Your task to perform on an android device: Search for pizza restaurants on Maps Image 0: 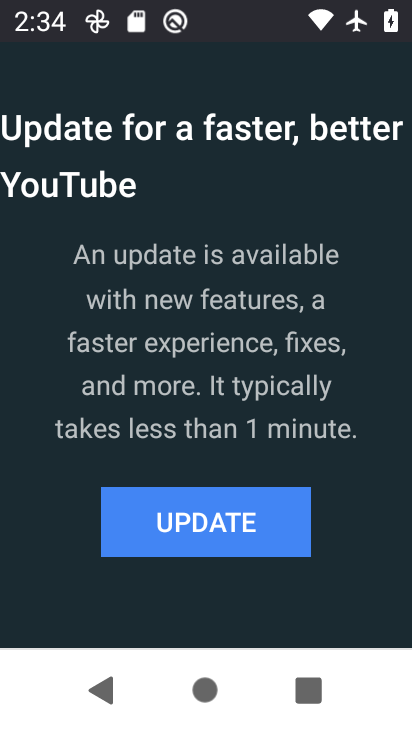
Step 0: press home button
Your task to perform on an android device: Search for pizza restaurants on Maps Image 1: 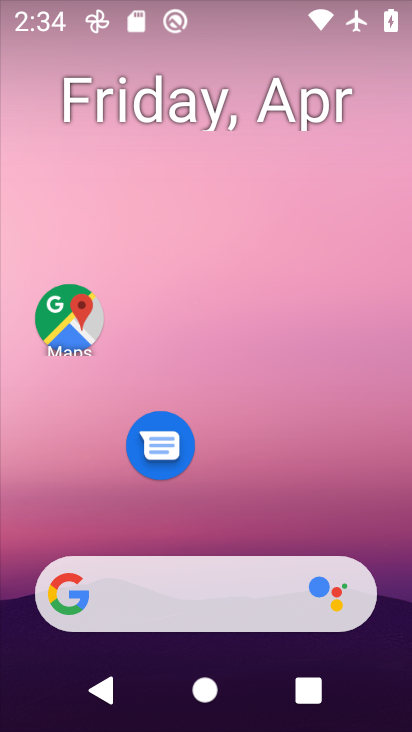
Step 1: drag from (259, 497) to (294, 50)
Your task to perform on an android device: Search for pizza restaurants on Maps Image 2: 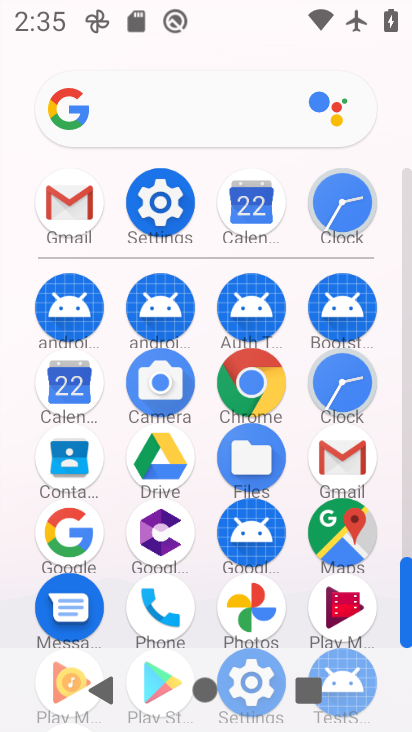
Step 2: click (333, 528)
Your task to perform on an android device: Search for pizza restaurants on Maps Image 3: 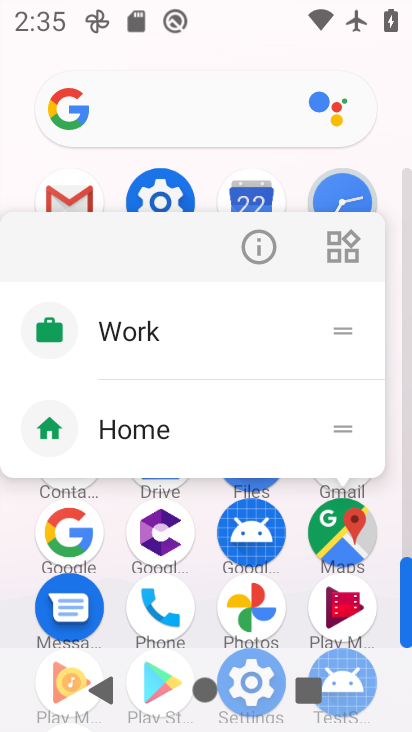
Step 3: click (333, 528)
Your task to perform on an android device: Search for pizza restaurants on Maps Image 4: 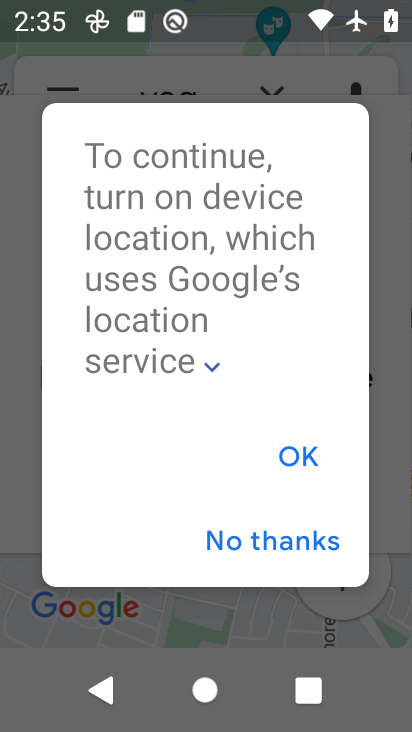
Step 4: click (323, 535)
Your task to perform on an android device: Search for pizza restaurants on Maps Image 5: 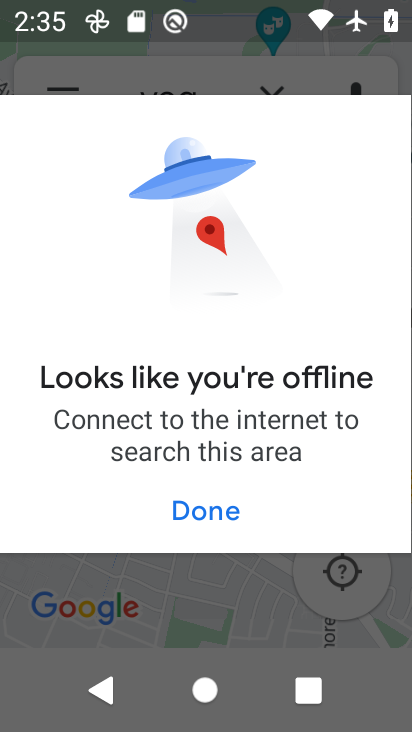
Step 5: click (198, 498)
Your task to perform on an android device: Search for pizza restaurants on Maps Image 6: 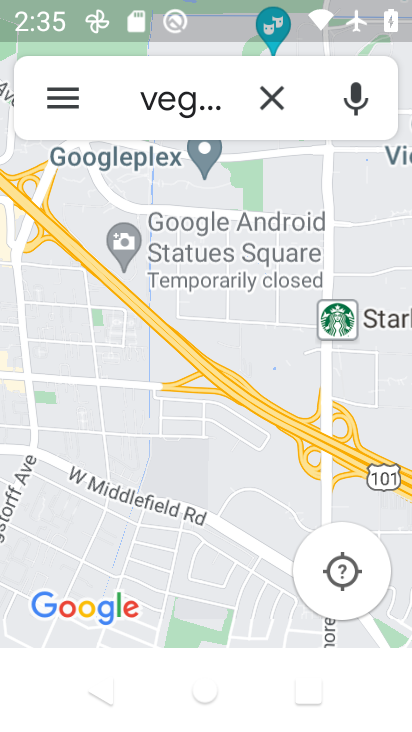
Step 6: click (277, 99)
Your task to perform on an android device: Search for pizza restaurants on Maps Image 7: 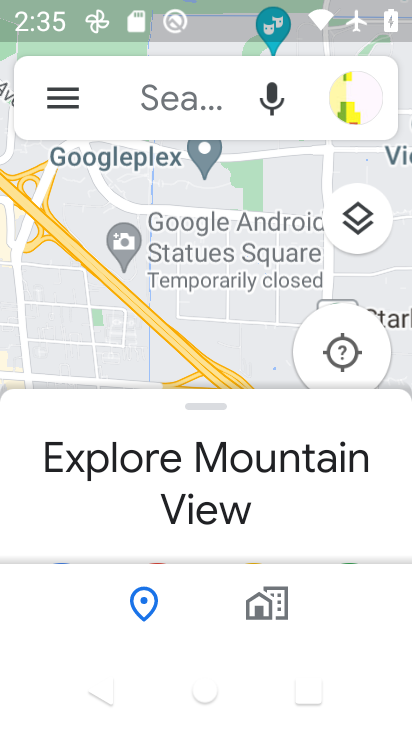
Step 7: click (183, 103)
Your task to perform on an android device: Search for pizza restaurants on Maps Image 8: 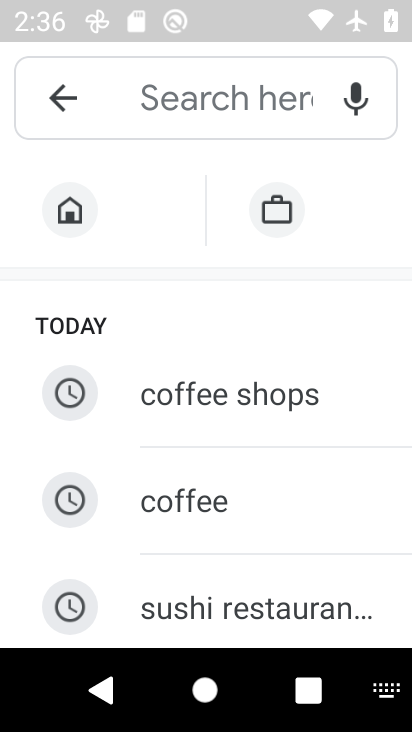
Step 8: type "pizza restaurants"
Your task to perform on an android device: Search for pizza restaurants on Maps Image 9: 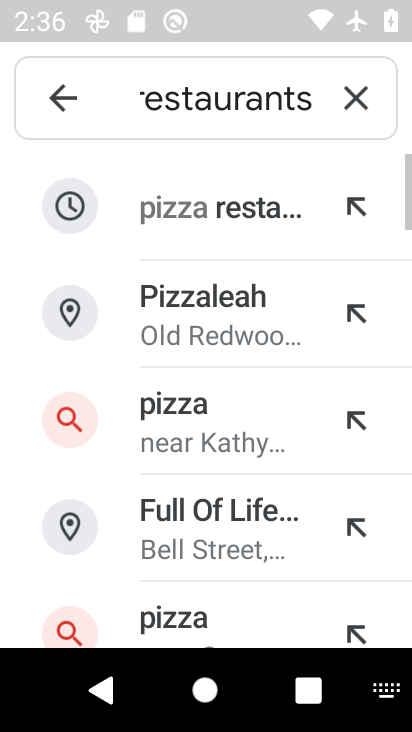
Step 9: click (178, 226)
Your task to perform on an android device: Search for pizza restaurants on Maps Image 10: 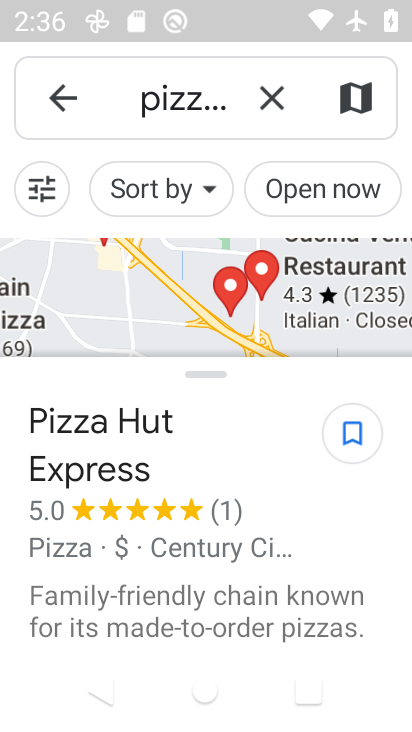
Step 10: task complete